Your task to perform on an android device: empty trash in google photos Image 0: 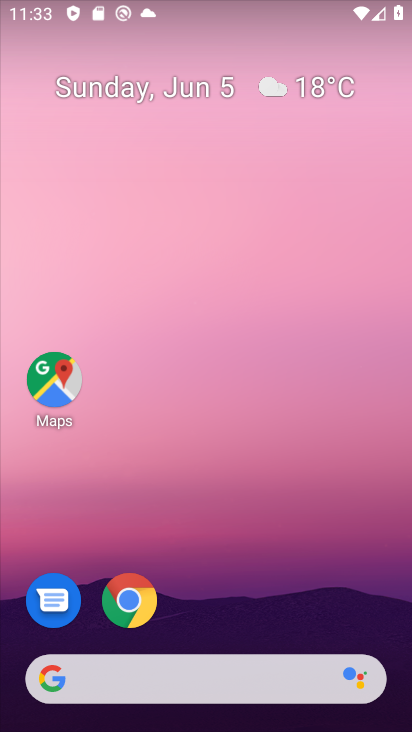
Step 0: drag from (143, 726) to (196, 19)
Your task to perform on an android device: empty trash in google photos Image 1: 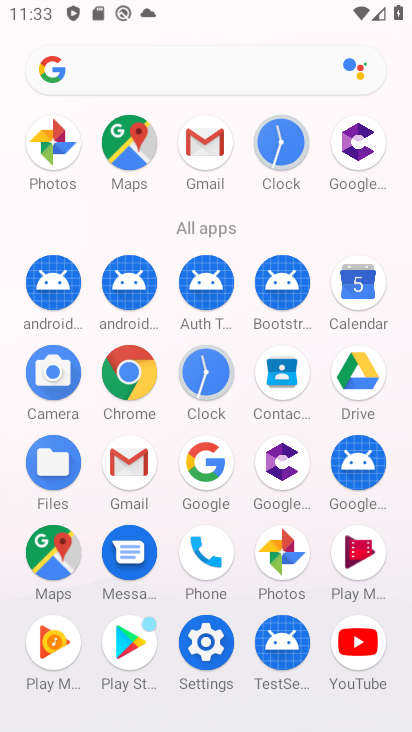
Step 1: click (275, 574)
Your task to perform on an android device: empty trash in google photos Image 2: 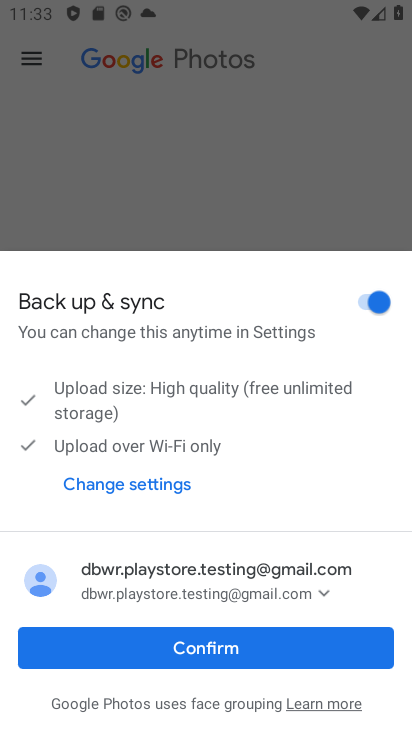
Step 2: click (199, 647)
Your task to perform on an android device: empty trash in google photos Image 3: 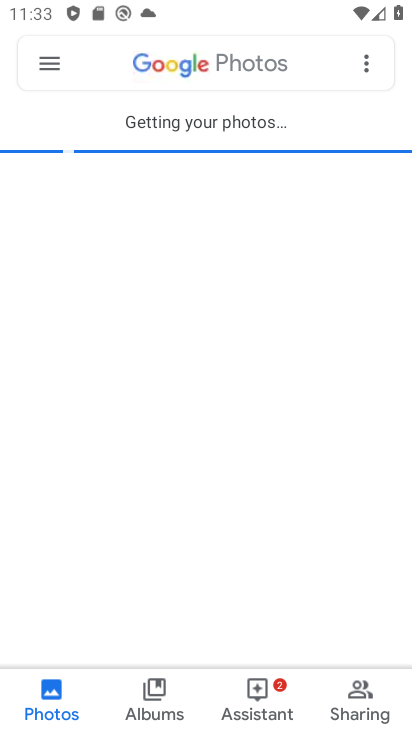
Step 3: click (40, 67)
Your task to perform on an android device: empty trash in google photos Image 4: 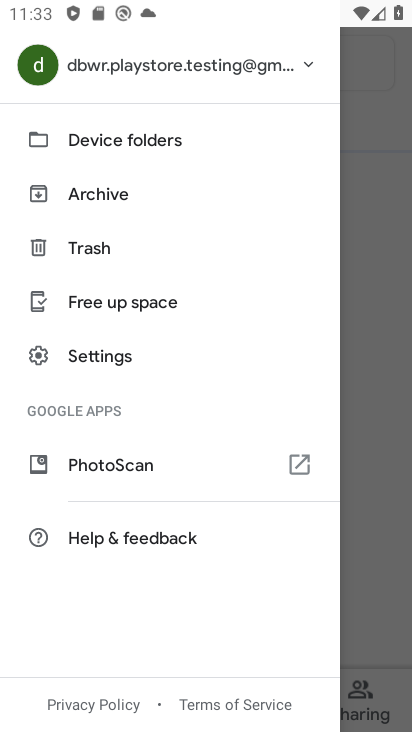
Step 4: click (114, 248)
Your task to perform on an android device: empty trash in google photos Image 5: 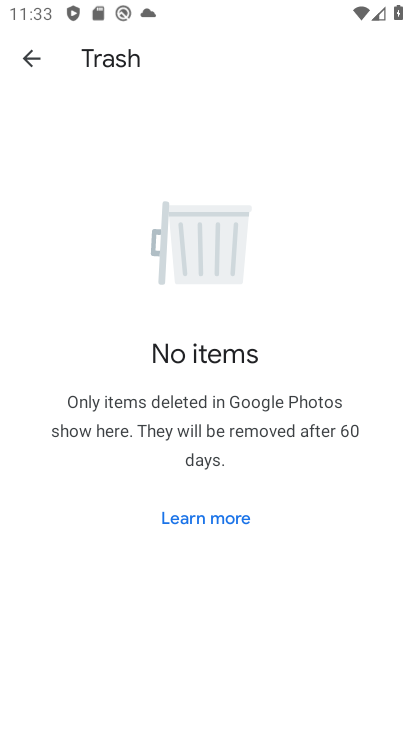
Step 5: task complete